Your task to perform on an android device: set the stopwatch Image 0: 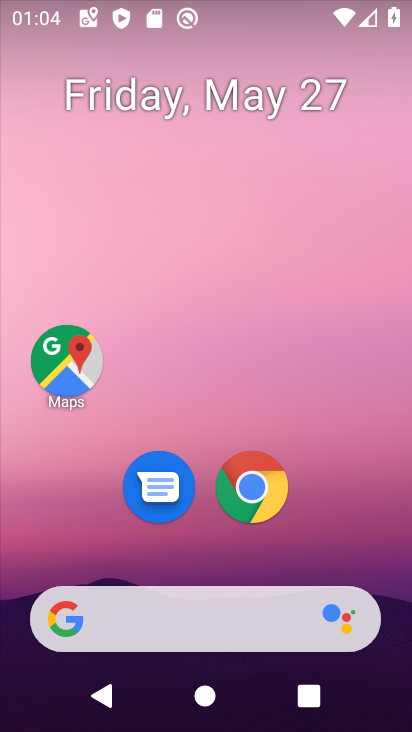
Step 0: drag from (163, 727) to (275, 70)
Your task to perform on an android device: set the stopwatch Image 1: 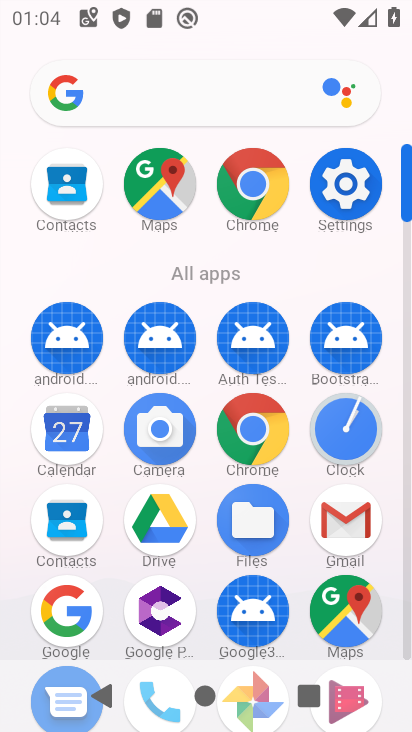
Step 1: click (343, 441)
Your task to perform on an android device: set the stopwatch Image 2: 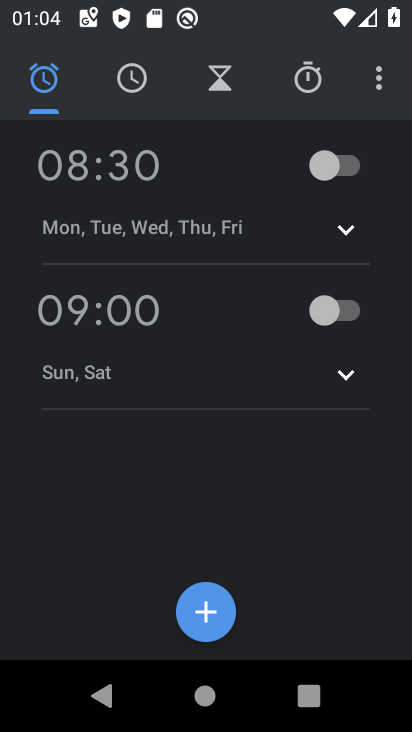
Step 2: click (308, 83)
Your task to perform on an android device: set the stopwatch Image 3: 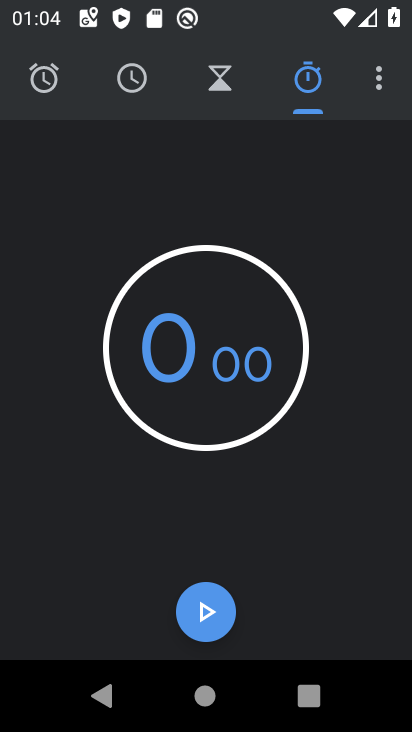
Step 3: click (195, 635)
Your task to perform on an android device: set the stopwatch Image 4: 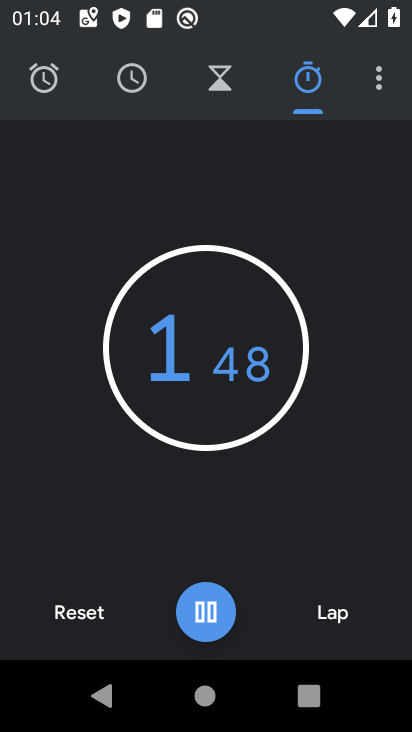
Step 4: click (200, 616)
Your task to perform on an android device: set the stopwatch Image 5: 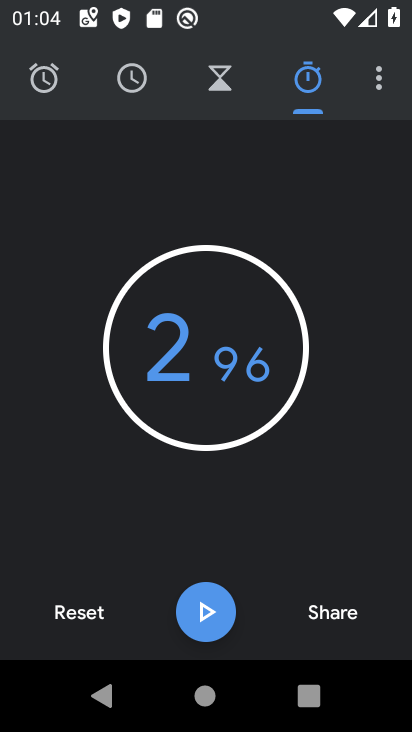
Step 5: click (99, 613)
Your task to perform on an android device: set the stopwatch Image 6: 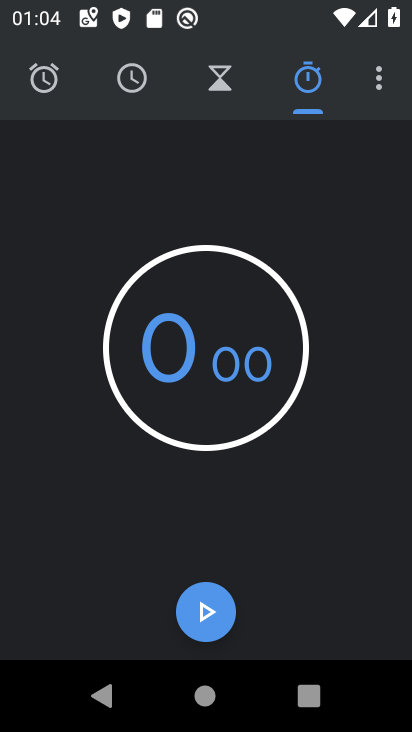
Step 6: task complete